Your task to perform on an android device: open a bookmark in the chrome app Image 0: 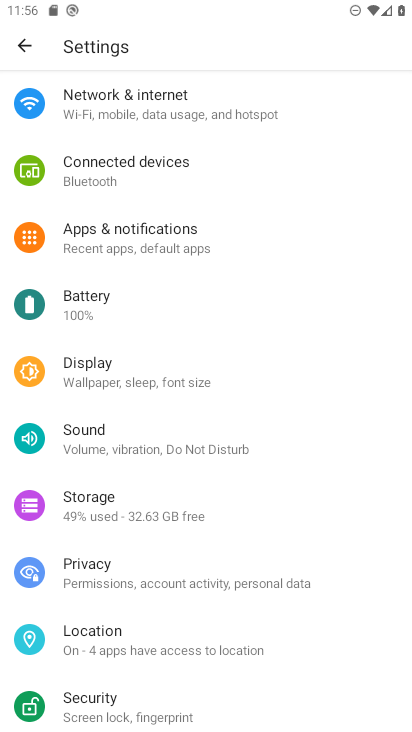
Step 0: press home button
Your task to perform on an android device: open a bookmark in the chrome app Image 1: 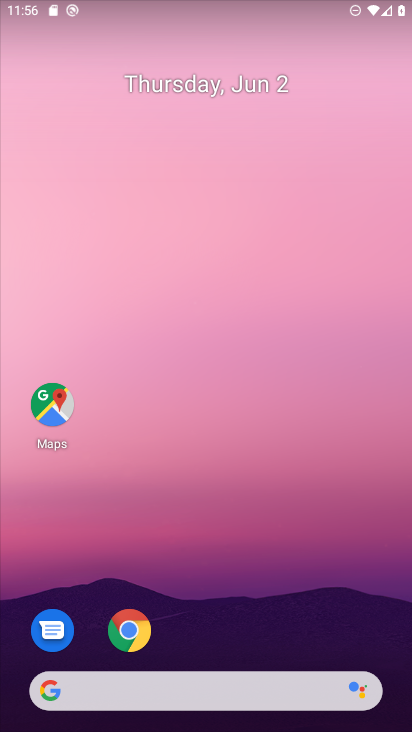
Step 1: drag from (251, 648) to (218, 245)
Your task to perform on an android device: open a bookmark in the chrome app Image 2: 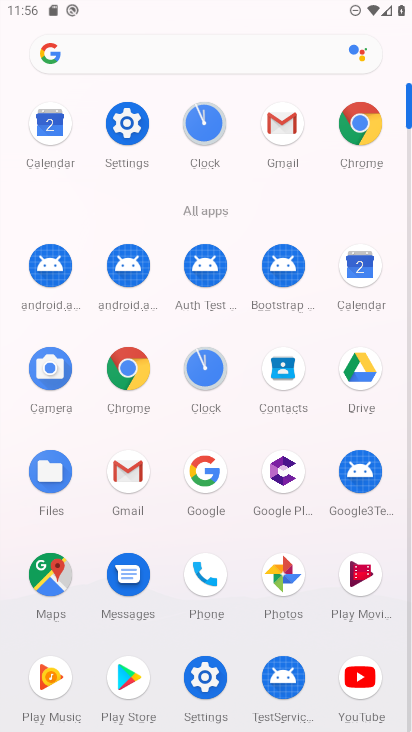
Step 2: click (363, 137)
Your task to perform on an android device: open a bookmark in the chrome app Image 3: 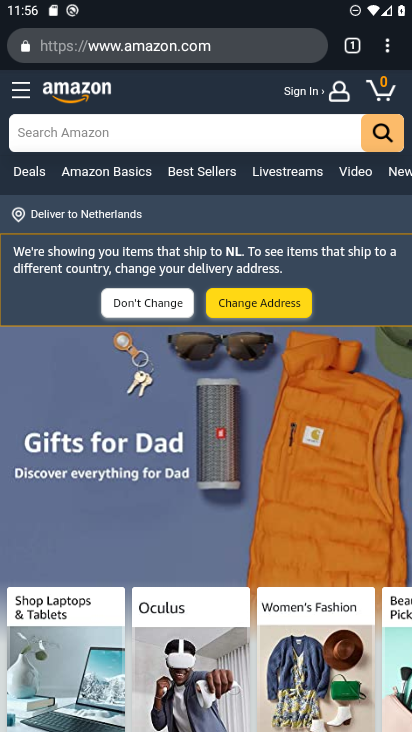
Step 3: click (388, 51)
Your task to perform on an android device: open a bookmark in the chrome app Image 4: 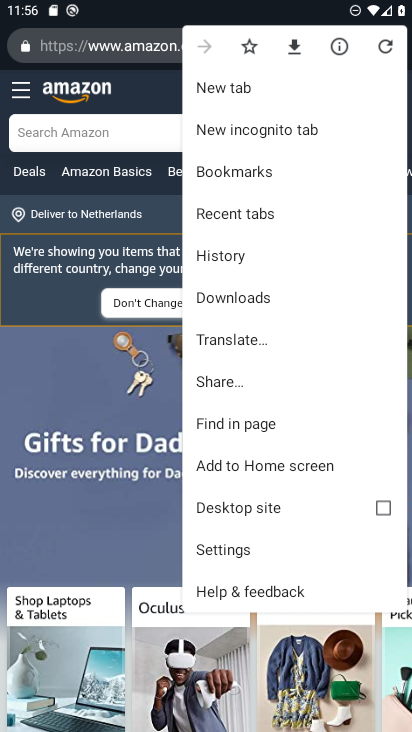
Step 4: click (300, 171)
Your task to perform on an android device: open a bookmark in the chrome app Image 5: 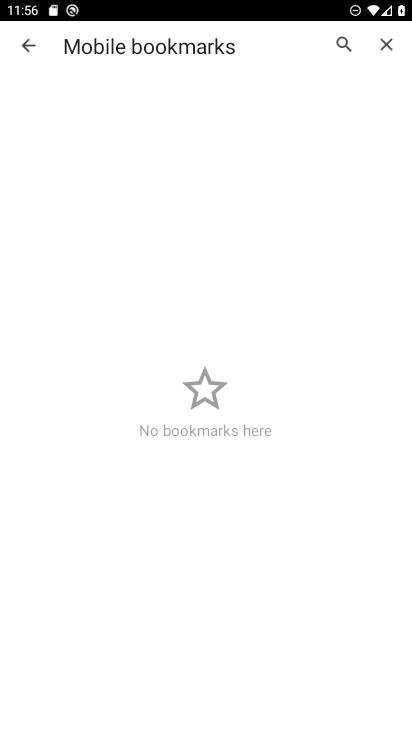
Step 5: task complete